Your task to perform on an android device: allow notifications from all sites in the chrome app Image 0: 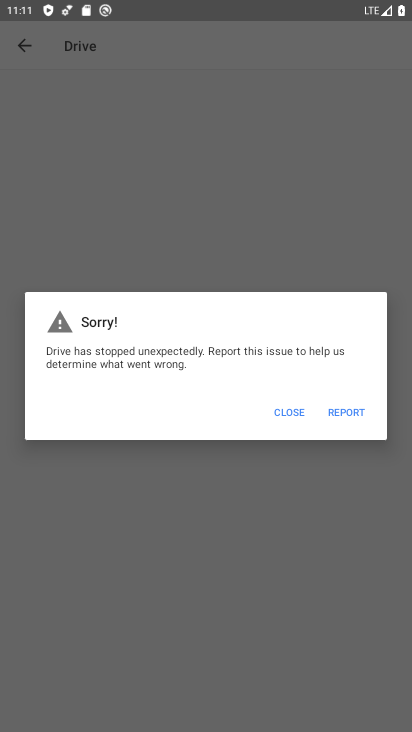
Step 0: click (127, 641)
Your task to perform on an android device: allow notifications from all sites in the chrome app Image 1: 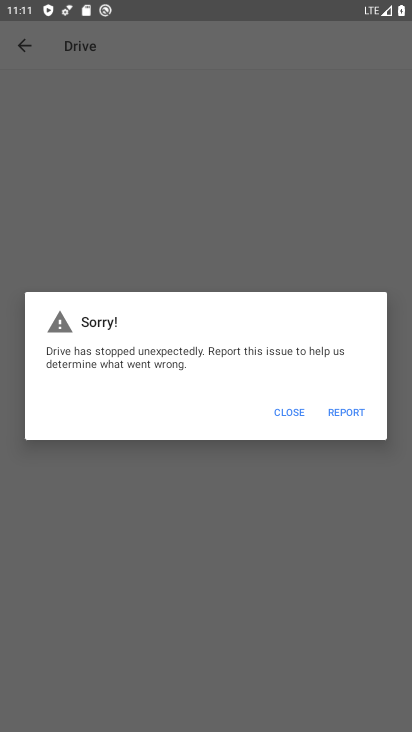
Step 1: press home button
Your task to perform on an android device: allow notifications from all sites in the chrome app Image 2: 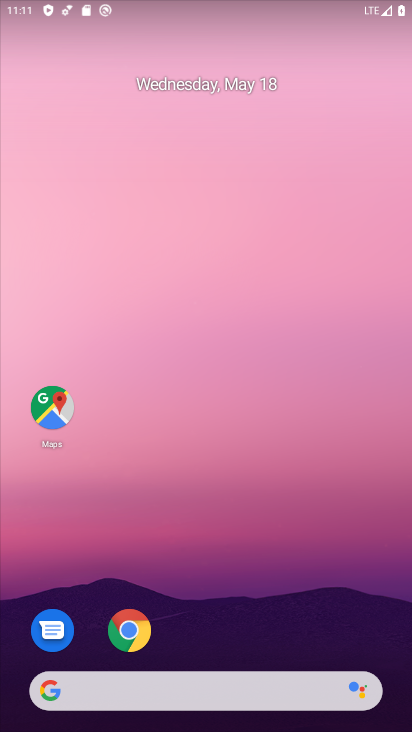
Step 2: click (130, 619)
Your task to perform on an android device: allow notifications from all sites in the chrome app Image 3: 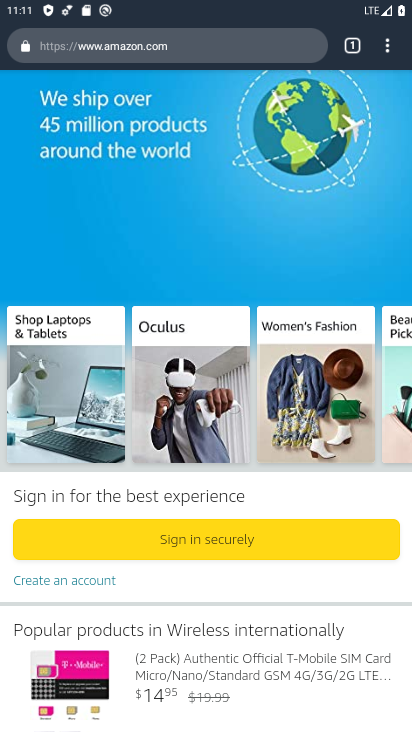
Step 3: click (391, 46)
Your task to perform on an android device: allow notifications from all sites in the chrome app Image 4: 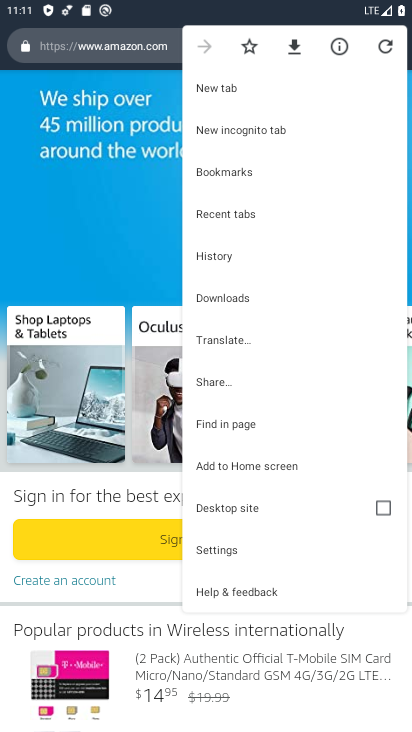
Step 4: click (233, 550)
Your task to perform on an android device: allow notifications from all sites in the chrome app Image 5: 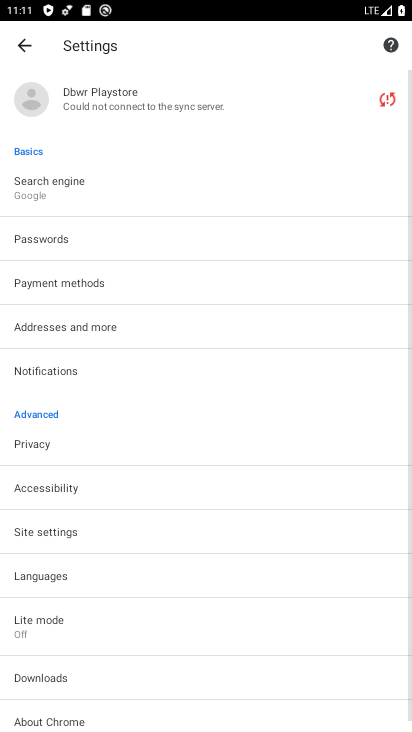
Step 5: click (56, 373)
Your task to perform on an android device: allow notifications from all sites in the chrome app Image 6: 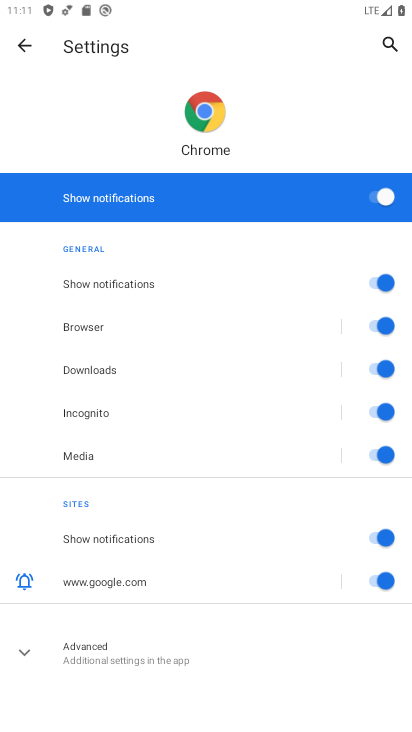
Step 6: task complete